Your task to perform on an android device: turn on bluetooth scan Image 0: 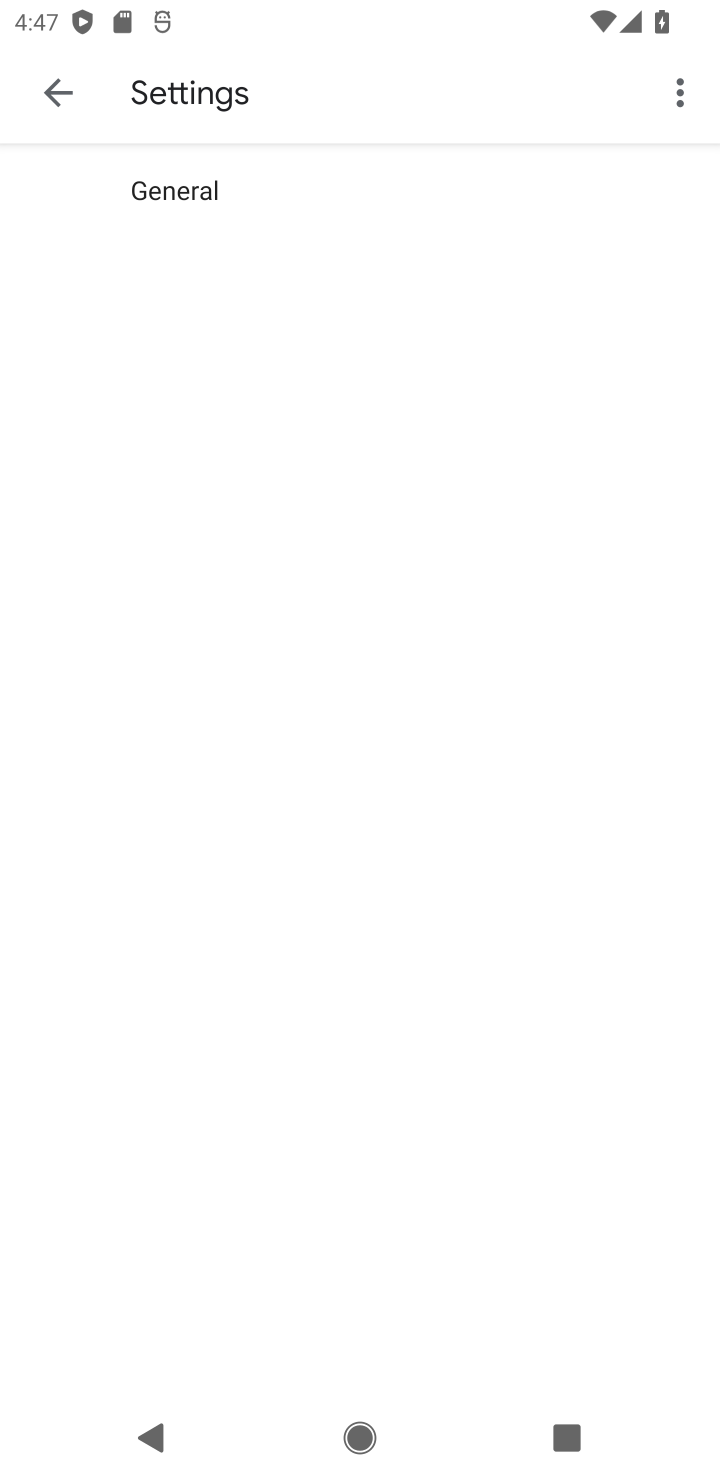
Step 0: click (80, 95)
Your task to perform on an android device: turn on bluetooth scan Image 1: 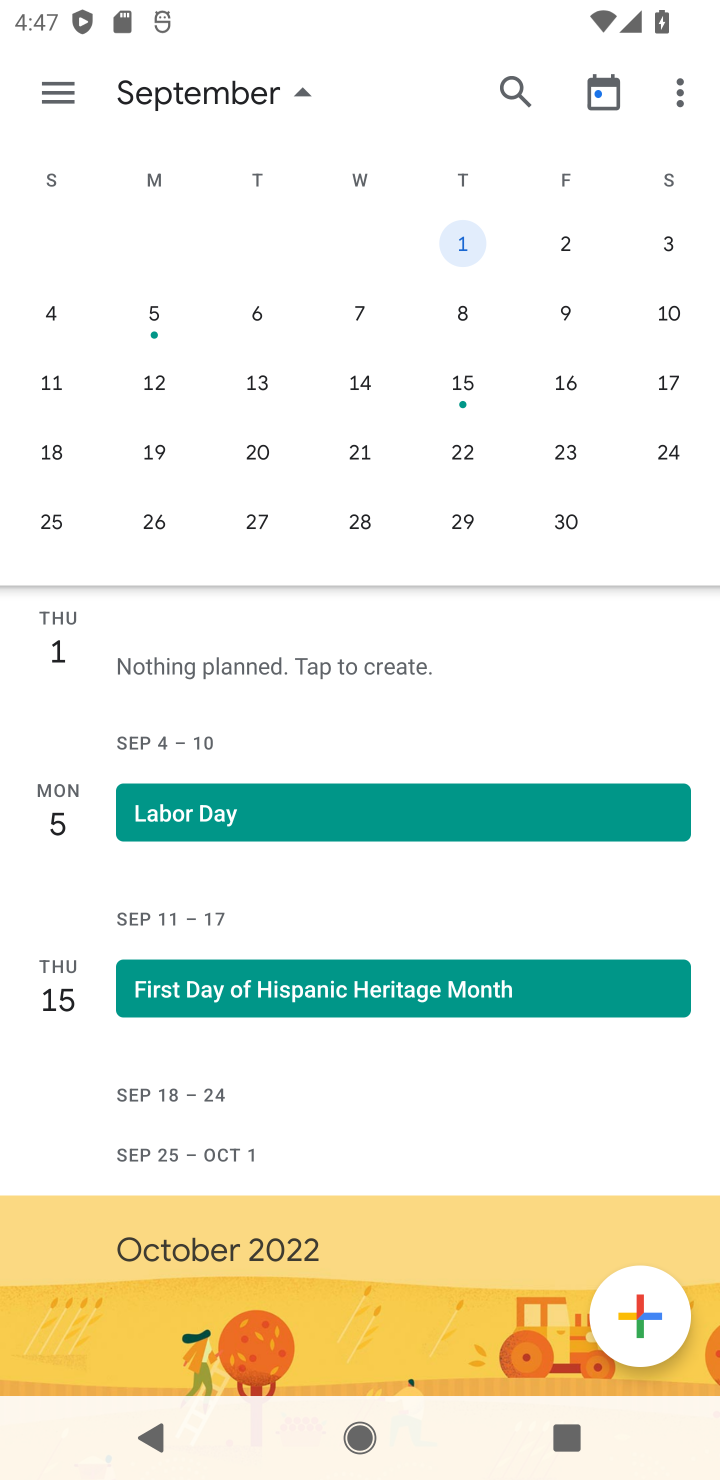
Step 1: press back button
Your task to perform on an android device: turn on bluetooth scan Image 2: 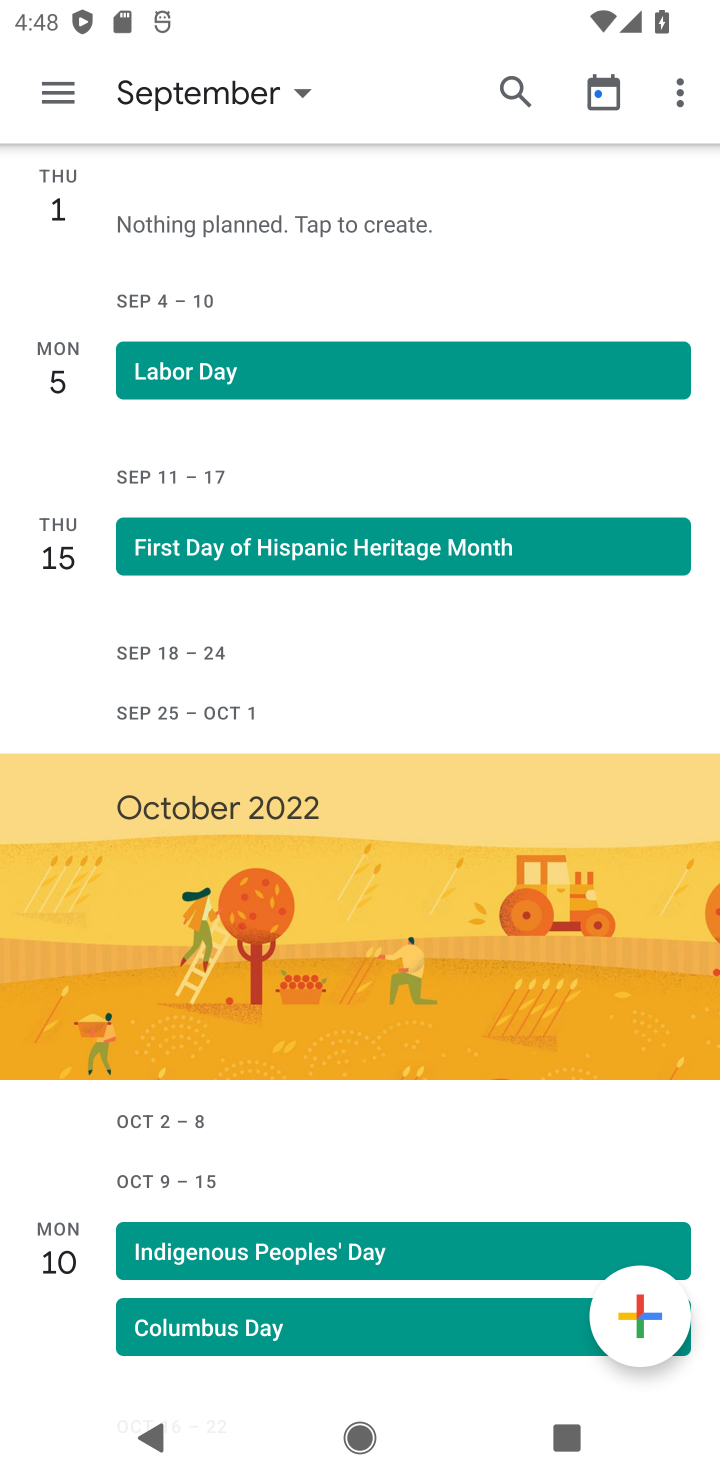
Step 2: press back button
Your task to perform on an android device: turn on bluetooth scan Image 3: 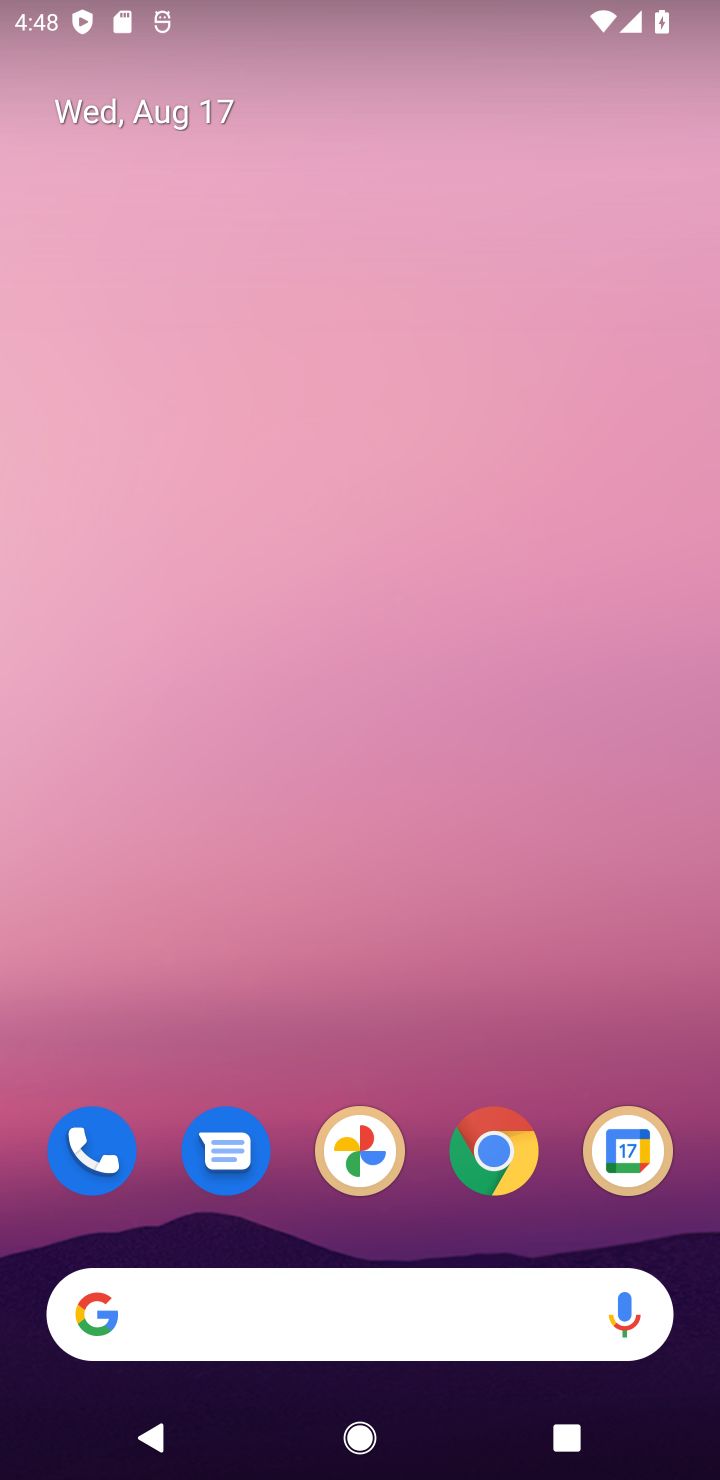
Step 3: drag from (402, 1247) to (394, 9)
Your task to perform on an android device: turn on bluetooth scan Image 4: 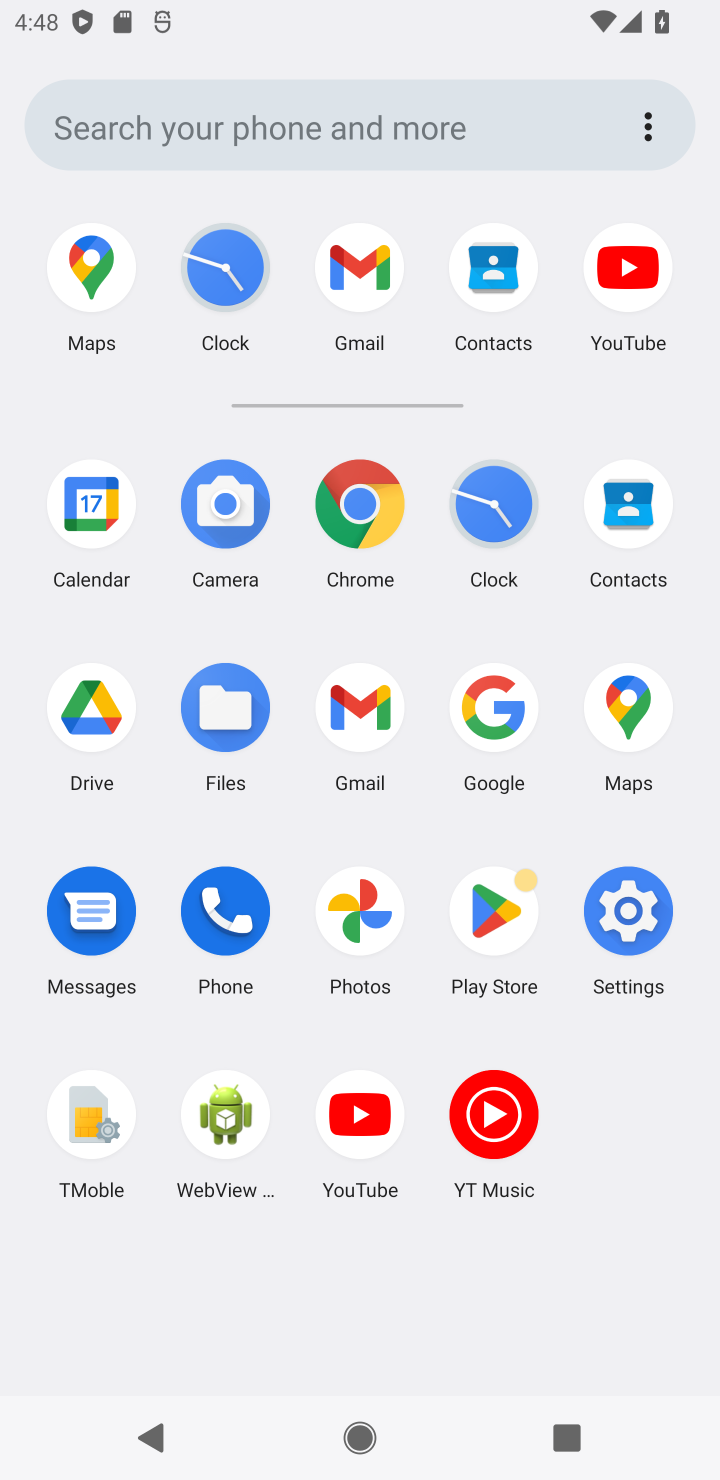
Step 4: click (625, 929)
Your task to perform on an android device: turn on bluetooth scan Image 5: 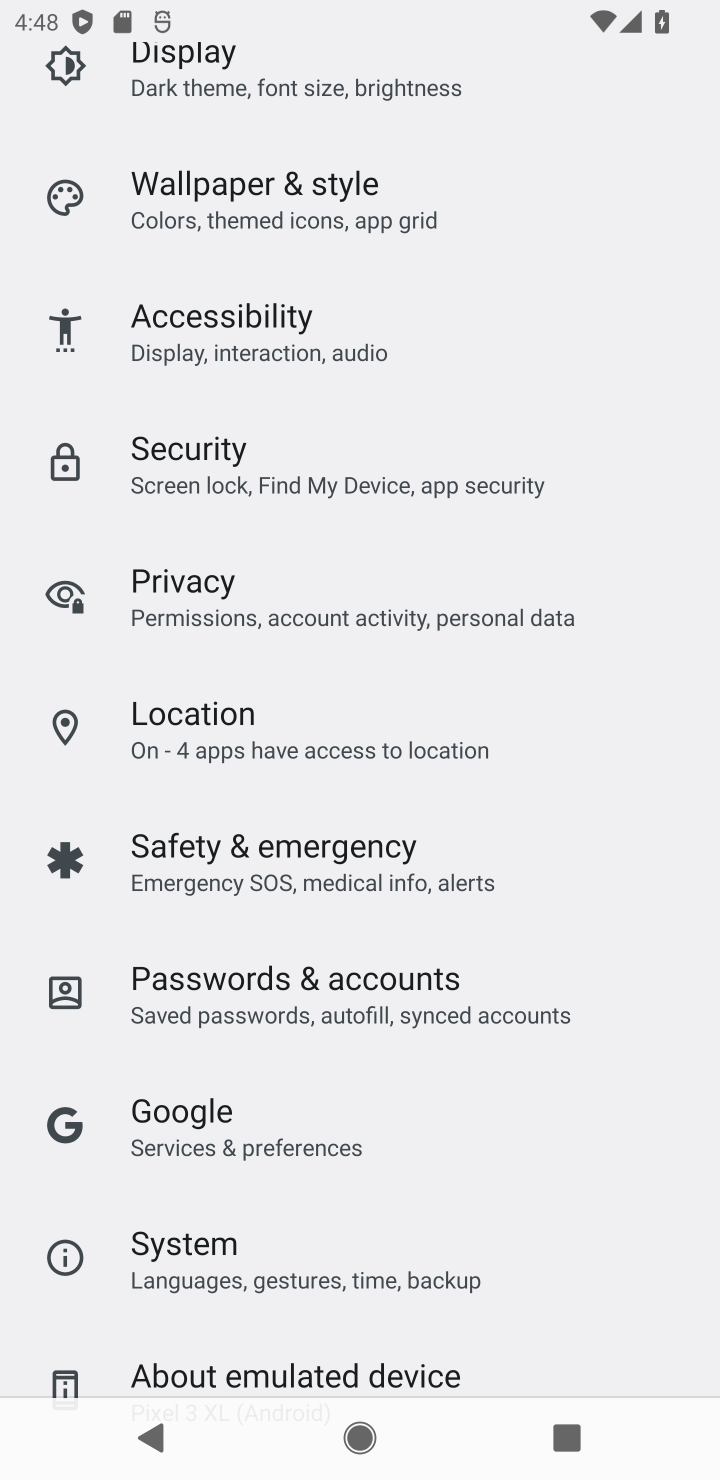
Step 5: drag from (404, 1202) to (393, 724)
Your task to perform on an android device: turn on bluetooth scan Image 6: 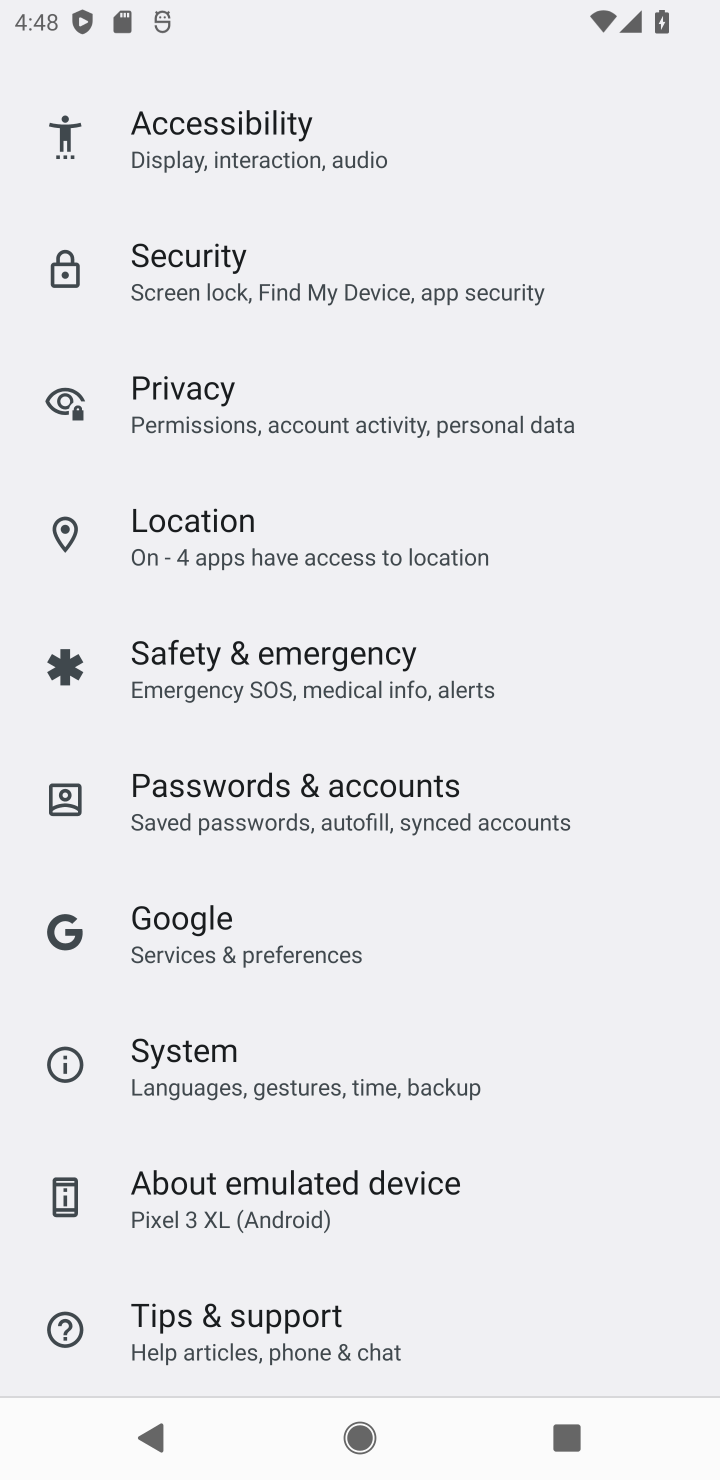
Step 6: click (296, 514)
Your task to perform on an android device: turn on bluetooth scan Image 7: 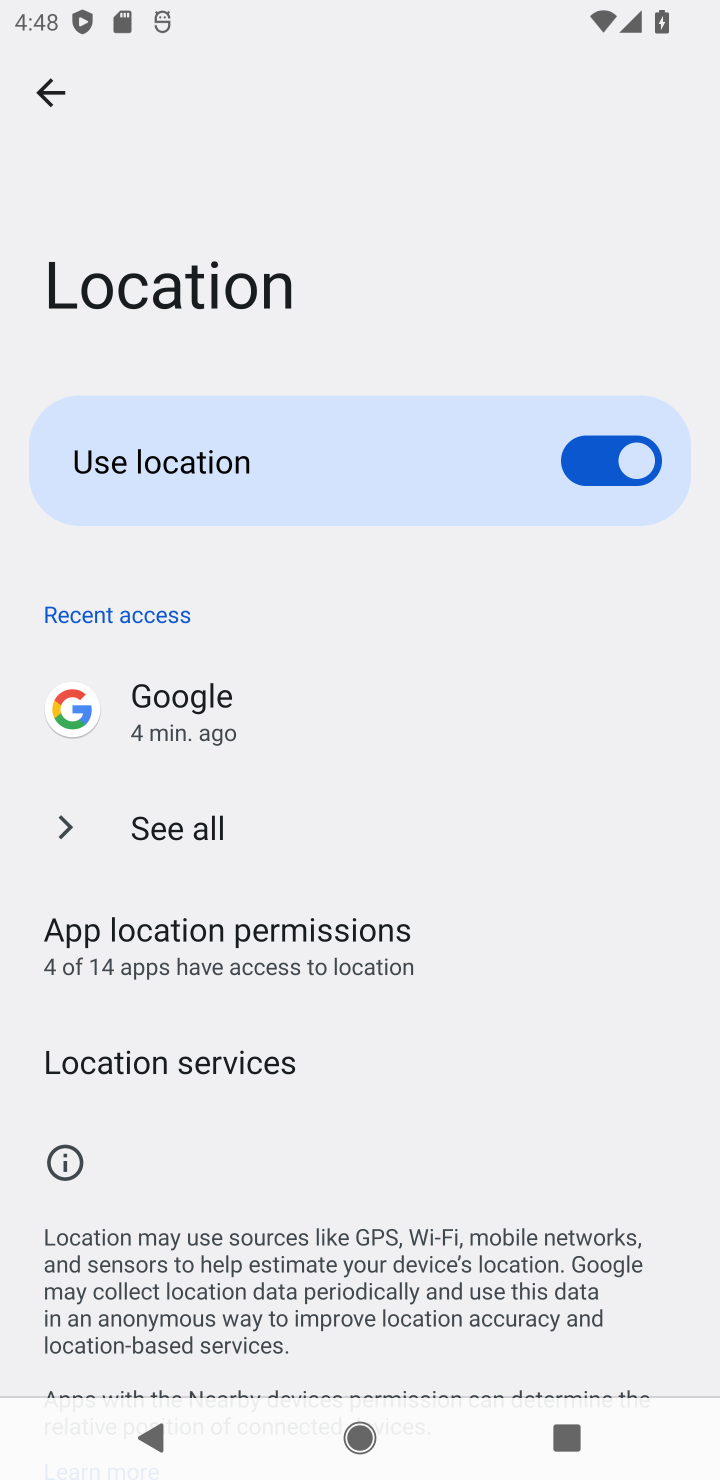
Step 7: drag from (275, 1079) to (300, 337)
Your task to perform on an android device: turn on bluetooth scan Image 8: 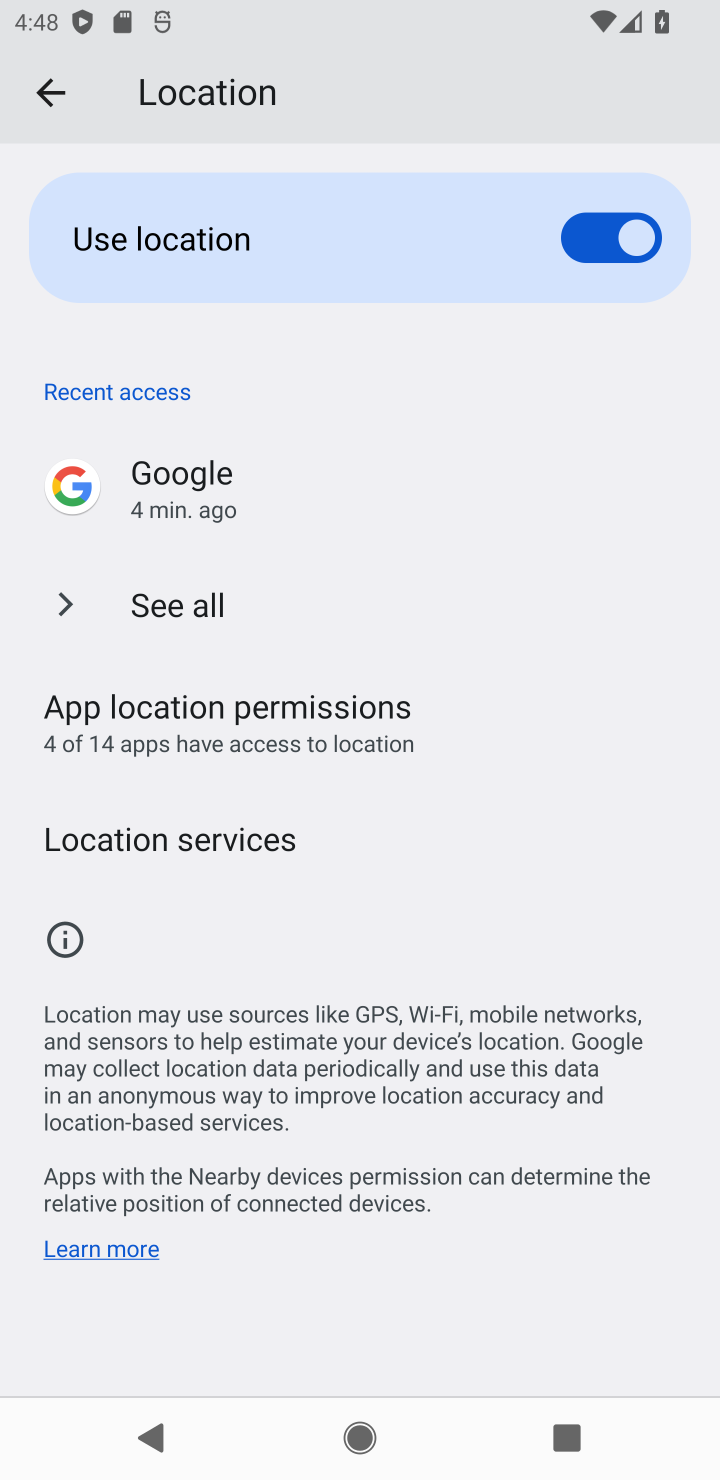
Step 8: drag from (252, 1252) to (312, 709)
Your task to perform on an android device: turn on bluetooth scan Image 9: 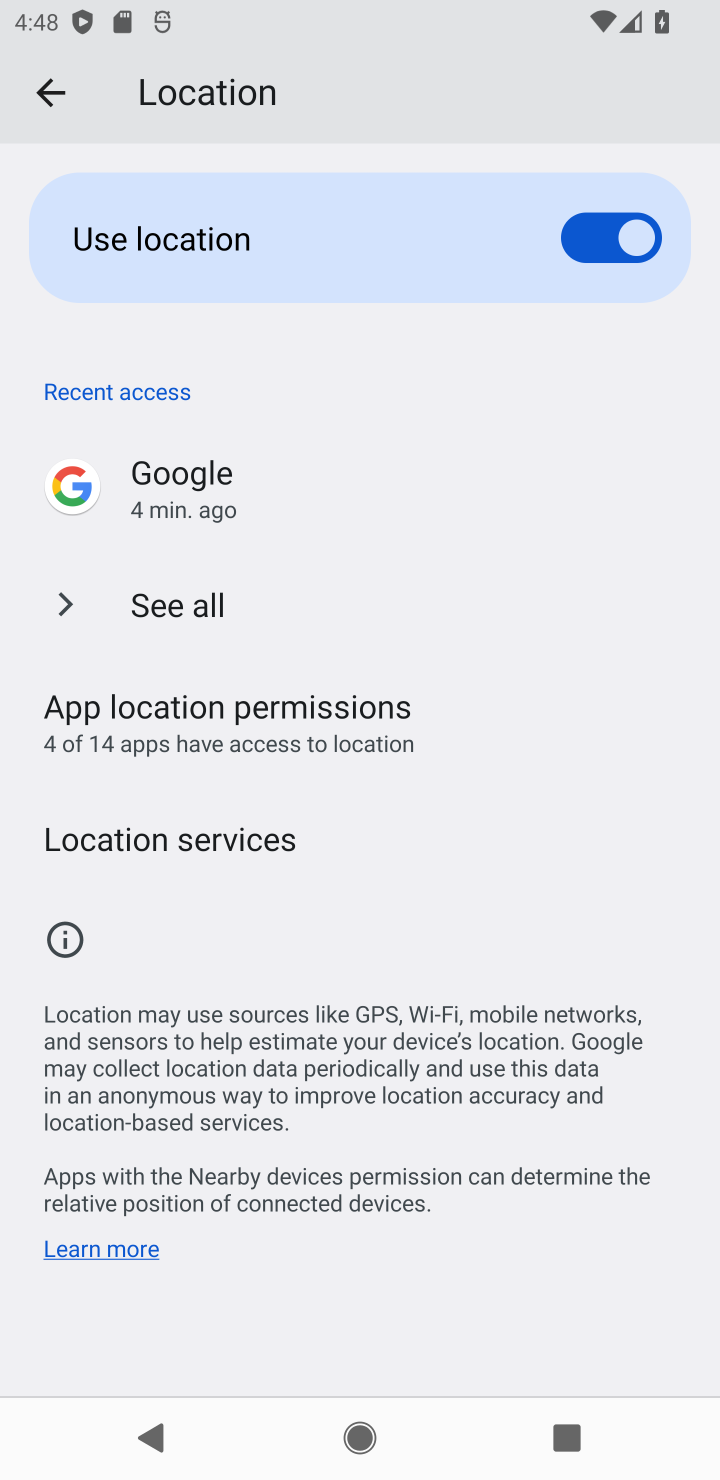
Step 9: click (209, 649)
Your task to perform on an android device: turn on bluetooth scan Image 10: 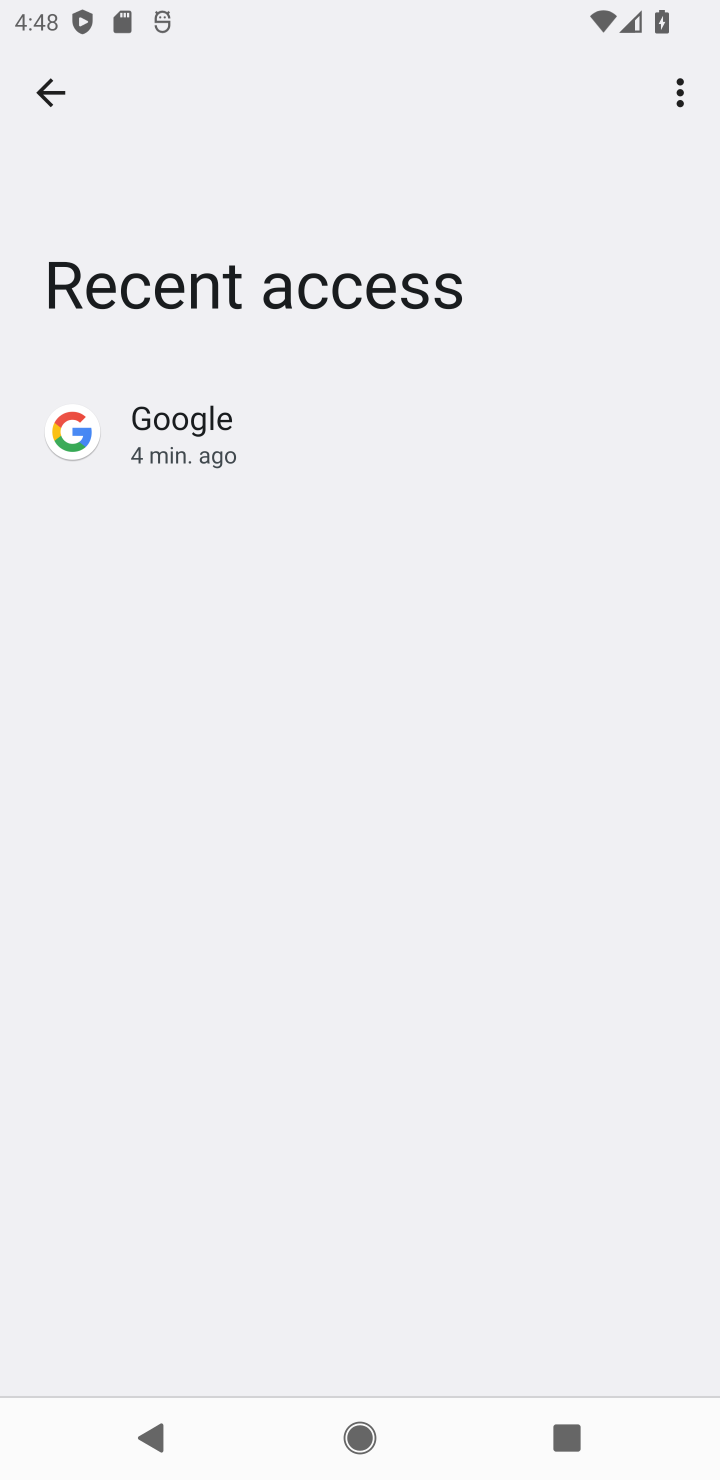
Step 10: task complete